Your task to perform on an android device: toggle airplane mode Image 0: 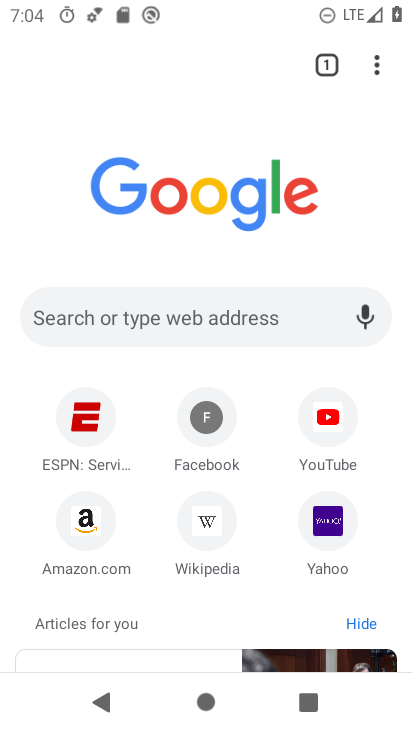
Step 0: press home button
Your task to perform on an android device: toggle airplane mode Image 1: 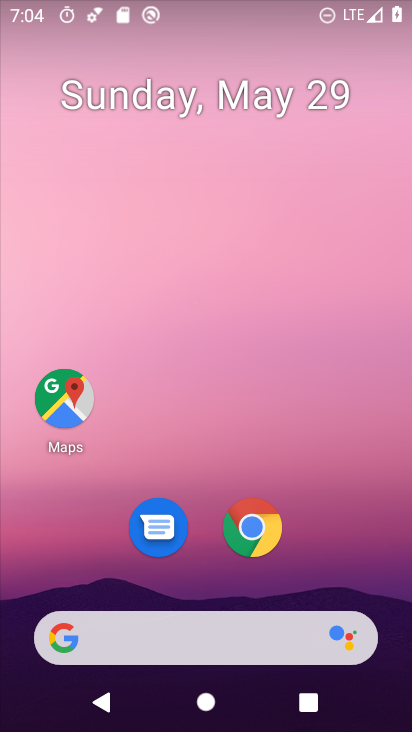
Step 1: drag from (239, 4) to (305, 556)
Your task to perform on an android device: toggle airplane mode Image 2: 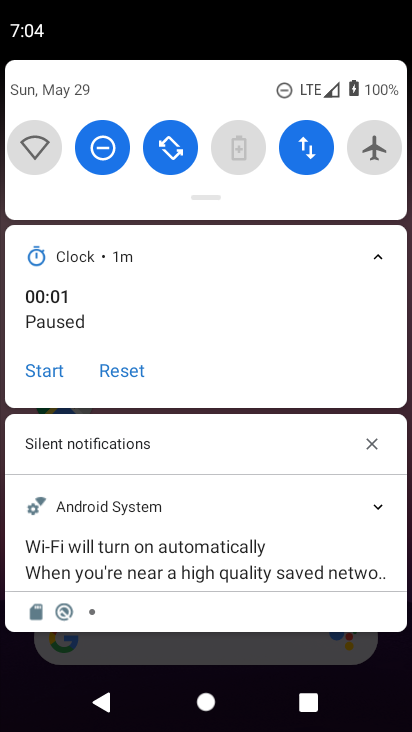
Step 2: click (370, 144)
Your task to perform on an android device: toggle airplane mode Image 3: 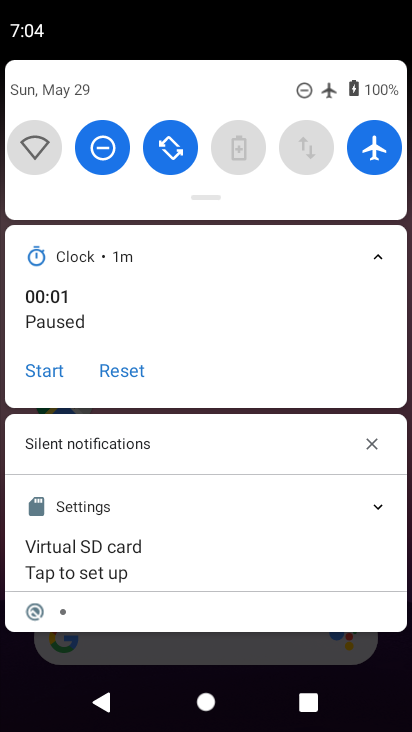
Step 3: task complete